Your task to perform on an android device: Search for hotels in Paris Image 0: 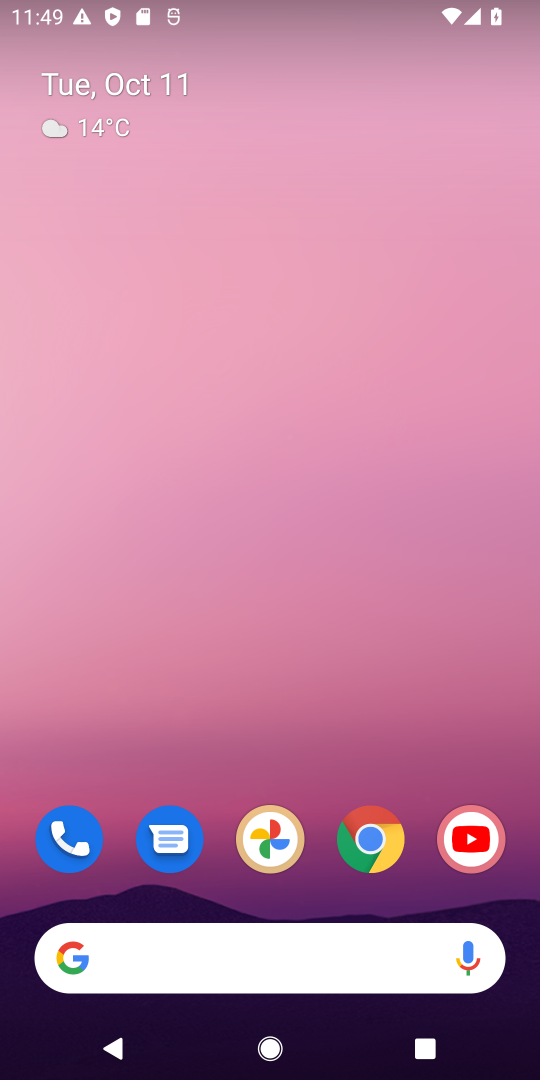
Step 0: click (391, 845)
Your task to perform on an android device: Search for hotels in Paris Image 1: 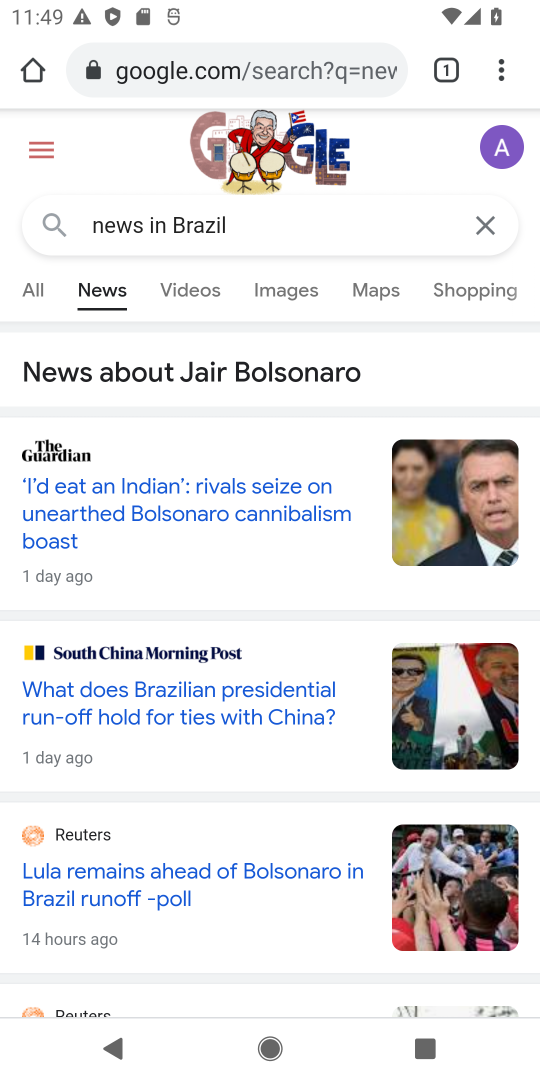
Step 1: click (161, 0)
Your task to perform on an android device: Search for hotels in Paris Image 2: 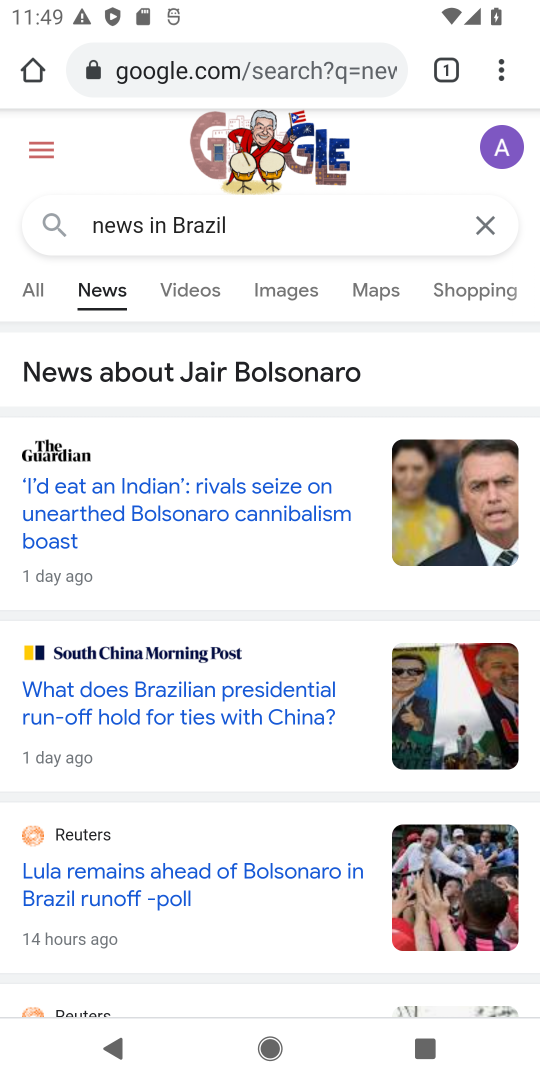
Step 2: click (374, 60)
Your task to perform on an android device: Search for hotels in Paris Image 3: 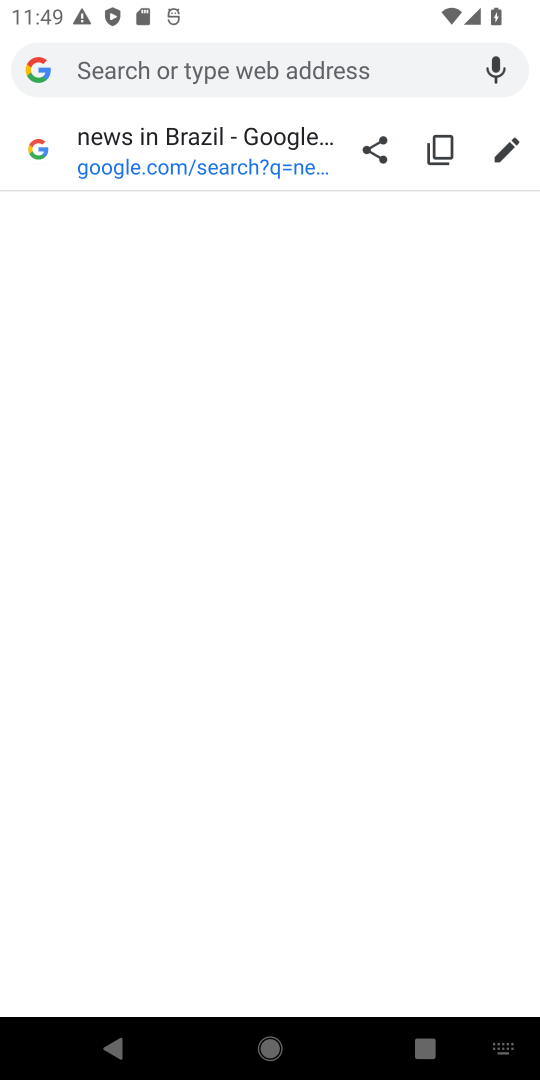
Step 3: type "hotels in Paris"
Your task to perform on an android device: Search for hotels in Paris Image 4: 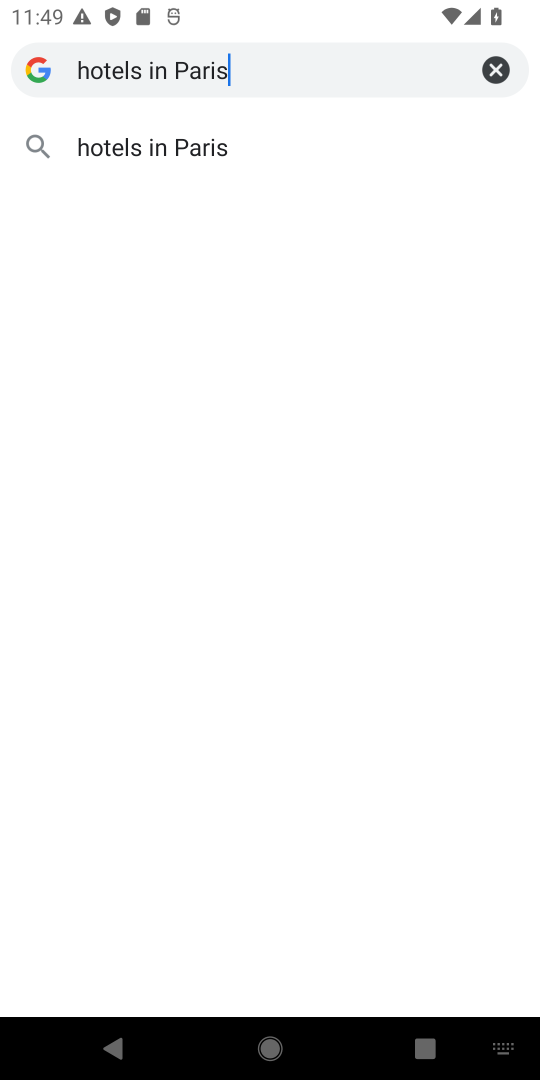
Step 4: click (210, 141)
Your task to perform on an android device: Search for hotels in Paris Image 5: 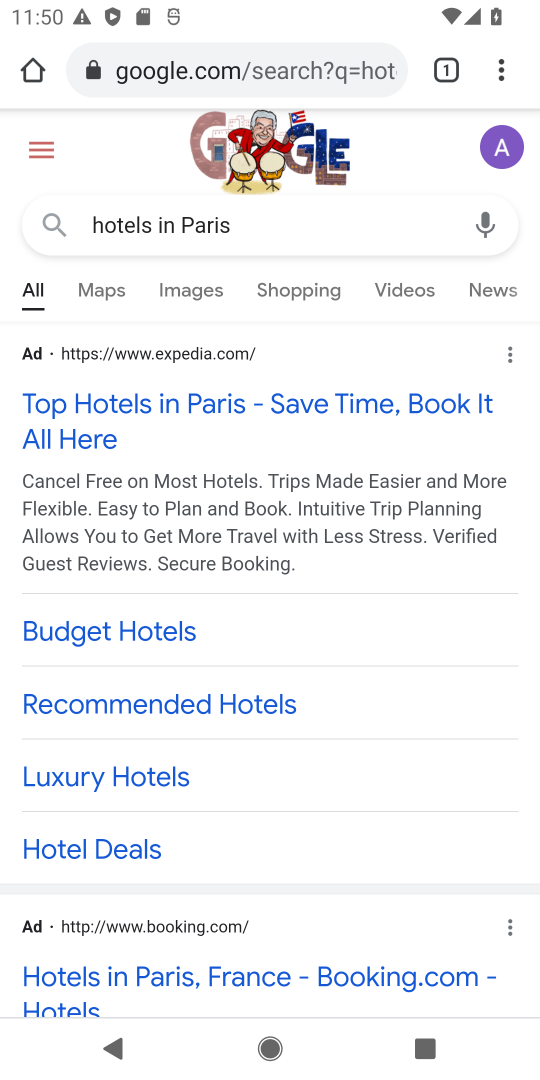
Step 5: task complete